Your task to perform on an android device: check storage Image 0: 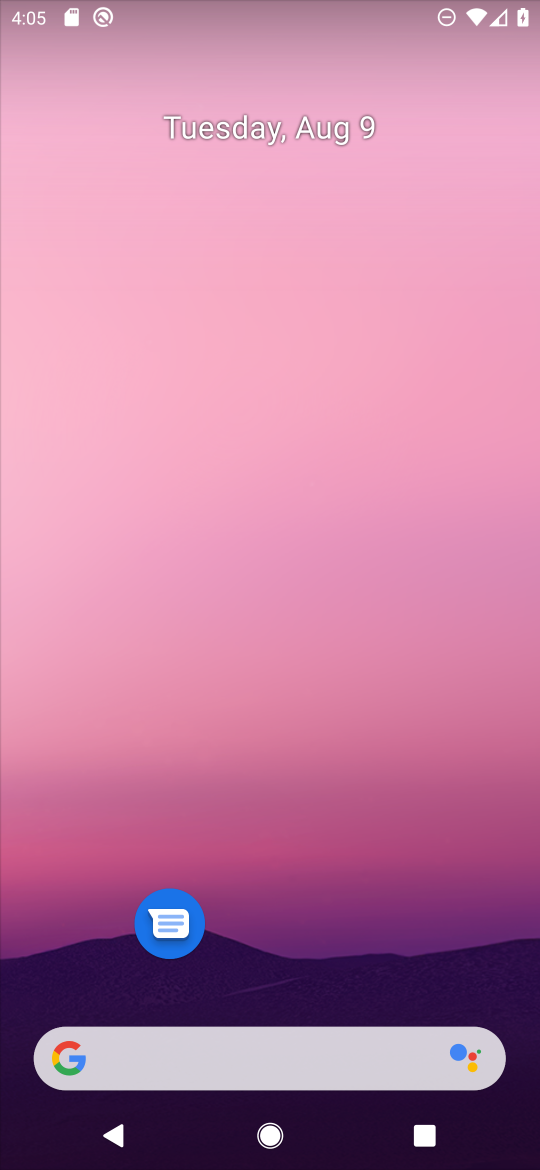
Step 0: drag from (349, 756) to (377, 93)
Your task to perform on an android device: check storage Image 1: 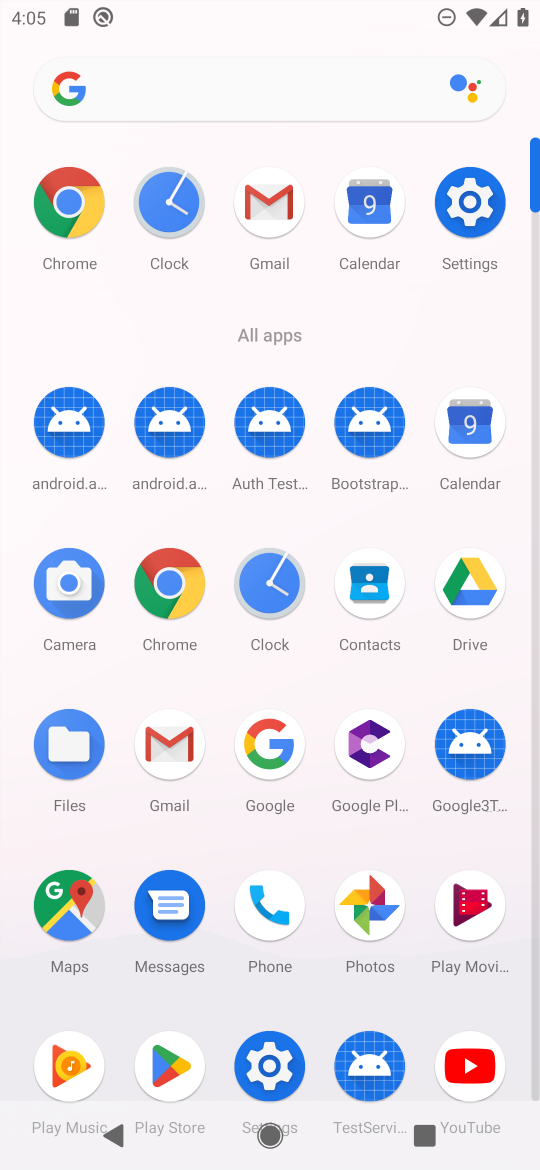
Step 1: click (486, 179)
Your task to perform on an android device: check storage Image 2: 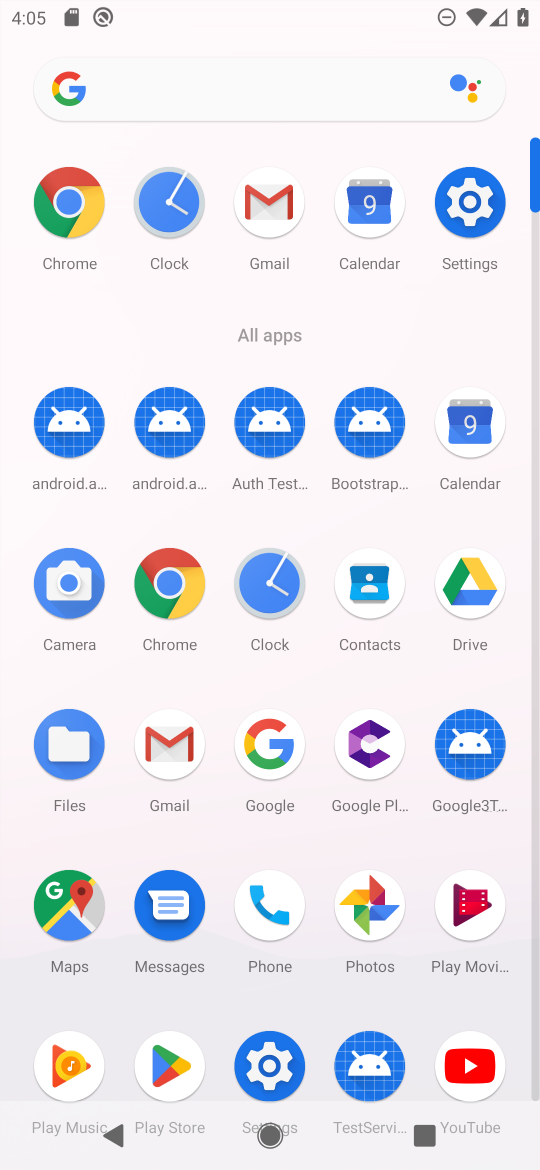
Step 2: click (483, 203)
Your task to perform on an android device: check storage Image 3: 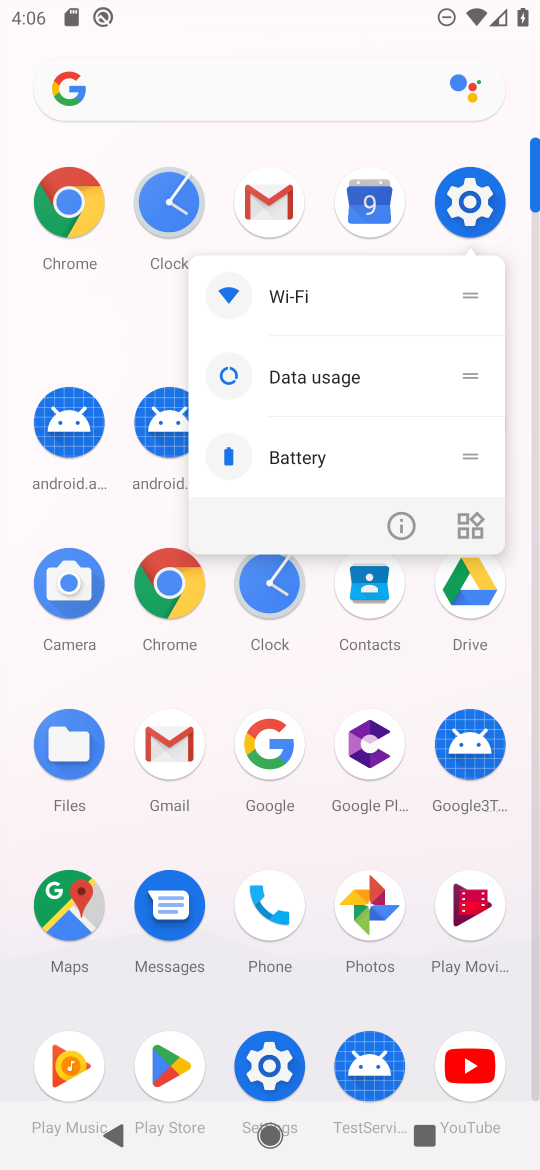
Step 3: click (470, 181)
Your task to perform on an android device: check storage Image 4: 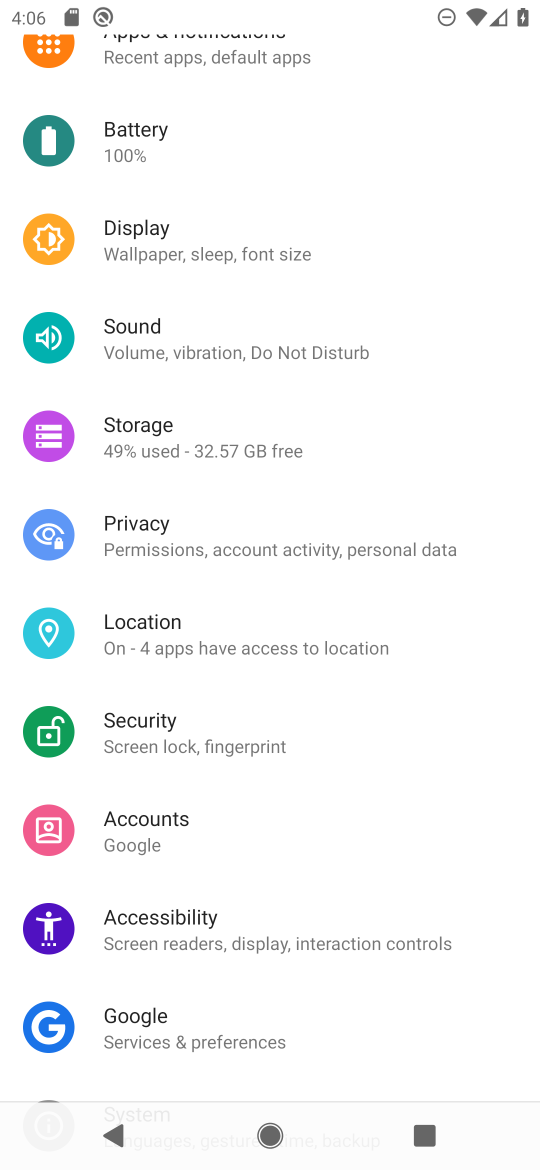
Step 4: click (185, 446)
Your task to perform on an android device: check storage Image 5: 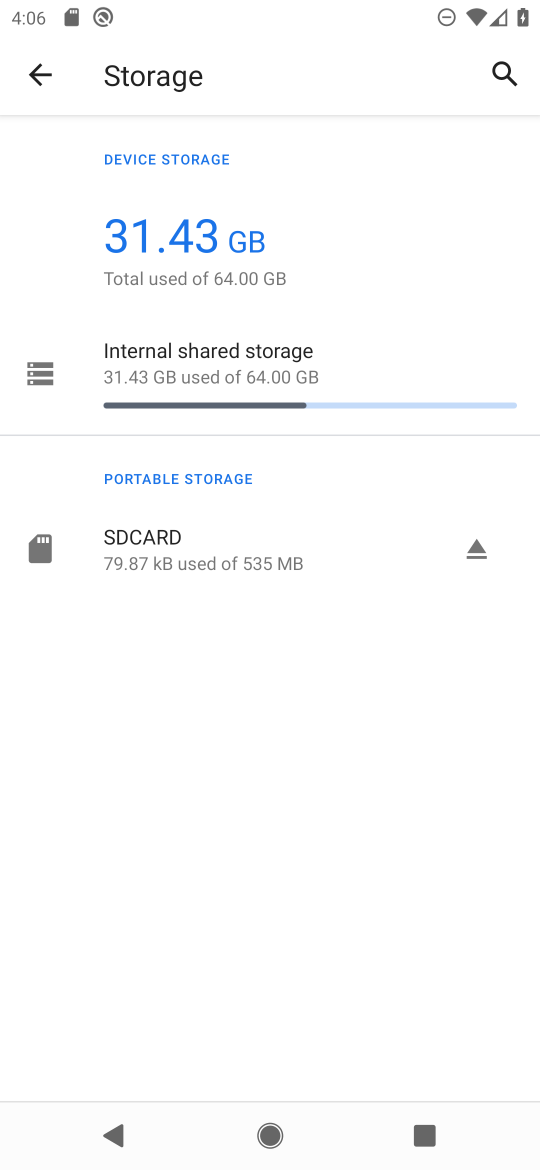
Step 5: task complete